Your task to perform on an android device: Is it going to rain tomorrow? Image 0: 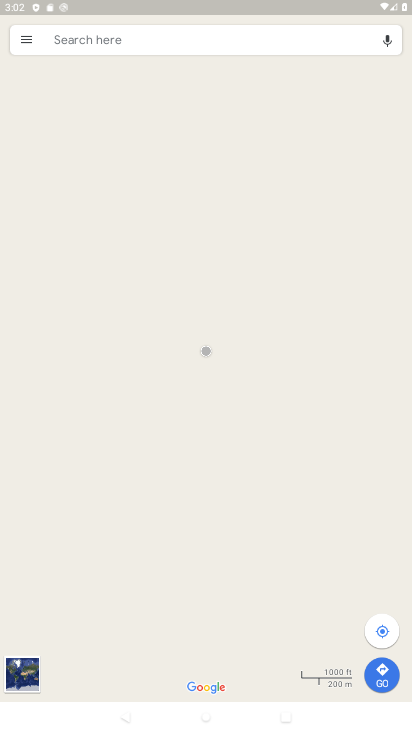
Step 0: press home button
Your task to perform on an android device: Is it going to rain tomorrow? Image 1: 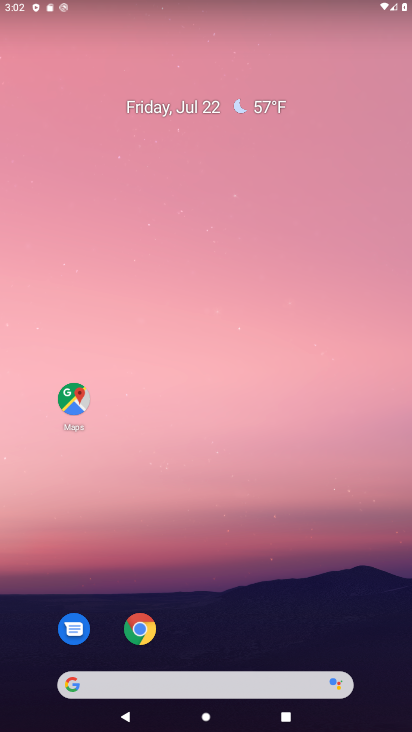
Step 1: drag from (235, 639) to (214, 227)
Your task to perform on an android device: Is it going to rain tomorrow? Image 2: 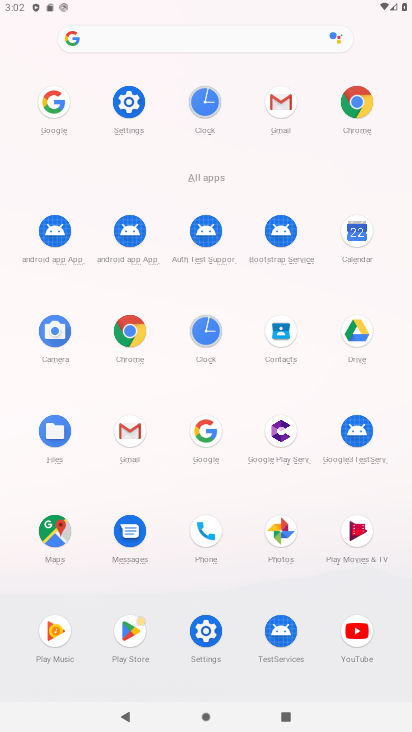
Step 2: click (358, 107)
Your task to perform on an android device: Is it going to rain tomorrow? Image 3: 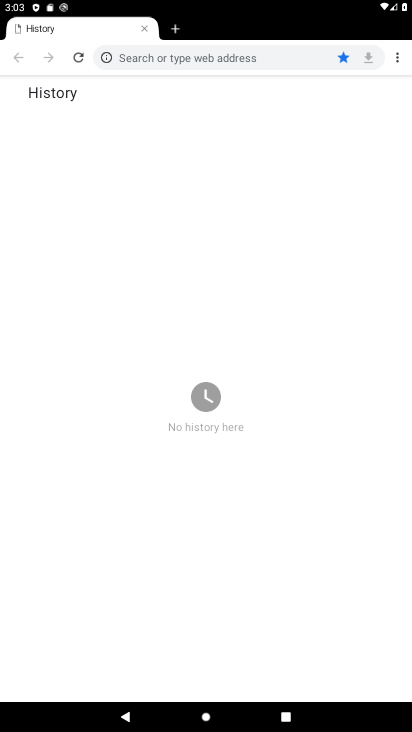
Step 3: click (277, 53)
Your task to perform on an android device: Is it going to rain tomorrow? Image 4: 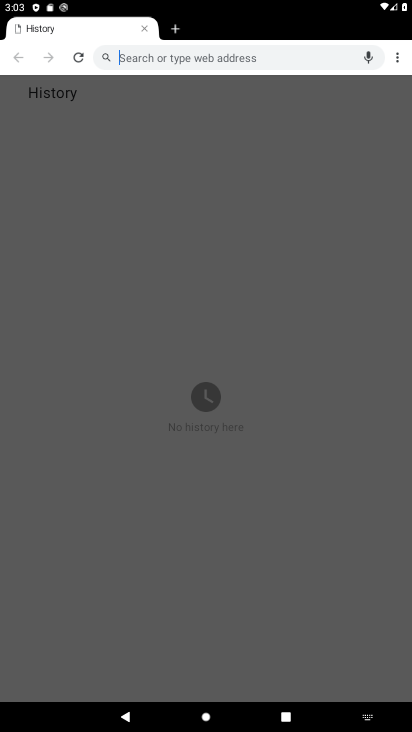
Step 4: type "Is it going to rain tomorrow?"
Your task to perform on an android device: Is it going to rain tomorrow? Image 5: 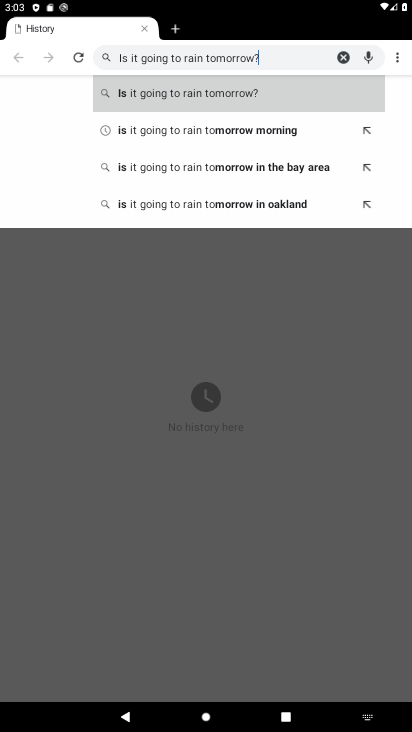
Step 5: click (246, 89)
Your task to perform on an android device: Is it going to rain tomorrow? Image 6: 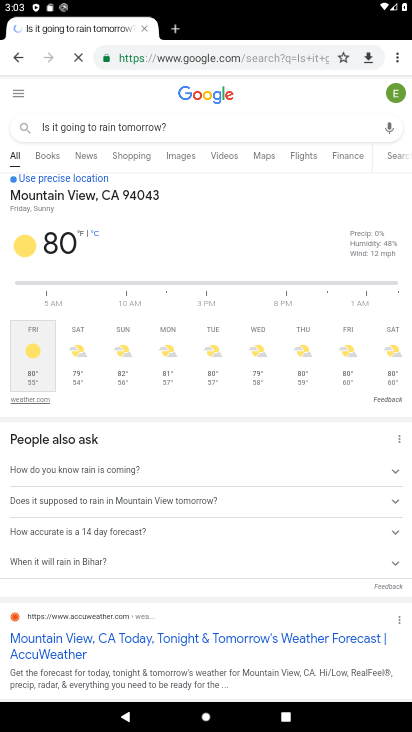
Step 6: task complete